Your task to perform on an android device: What is the news today? Image 0: 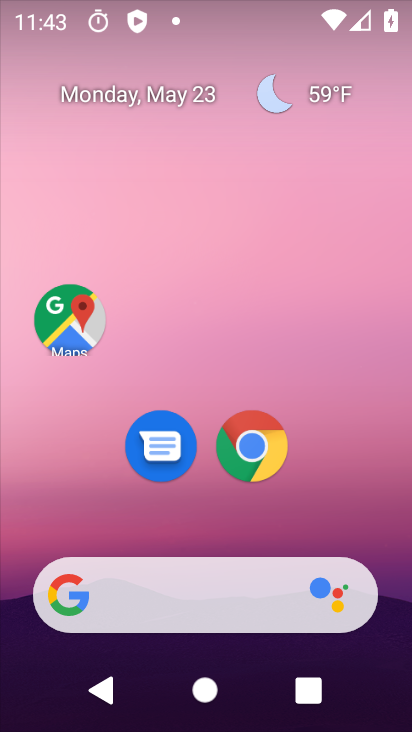
Step 0: drag from (211, 545) to (250, 96)
Your task to perform on an android device: What is the news today? Image 1: 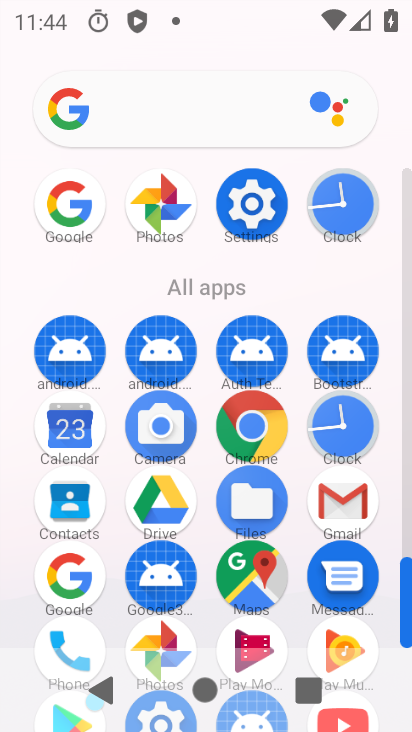
Step 1: click (74, 571)
Your task to perform on an android device: What is the news today? Image 2: 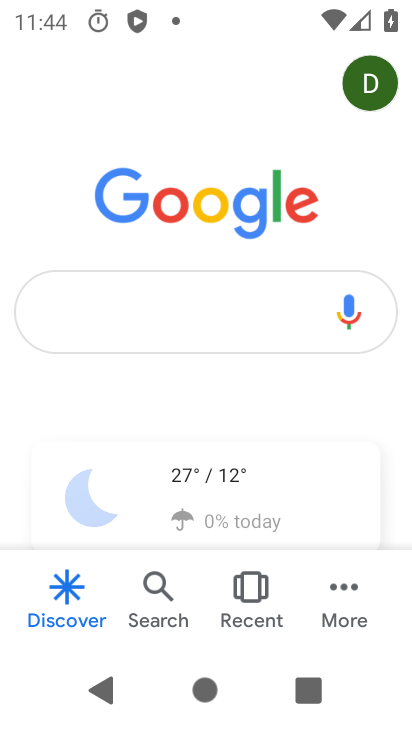
Step 2: click (81, 320)
Your task to perform on an android device: What is the news today? Image 3: 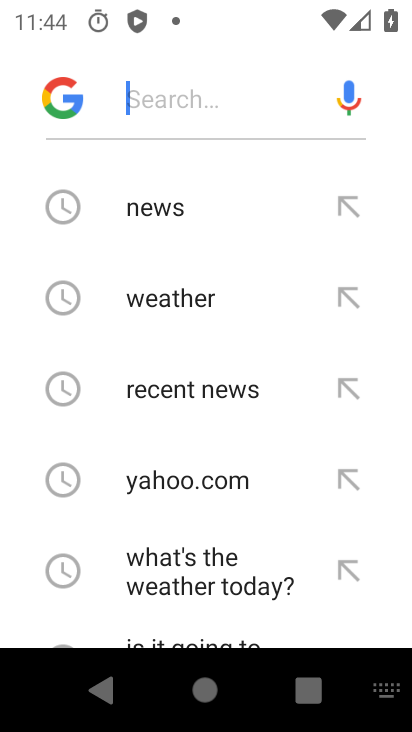
Step 3: click (171, 236)
Your task to perform on an android device: What is the news today? Image 4: 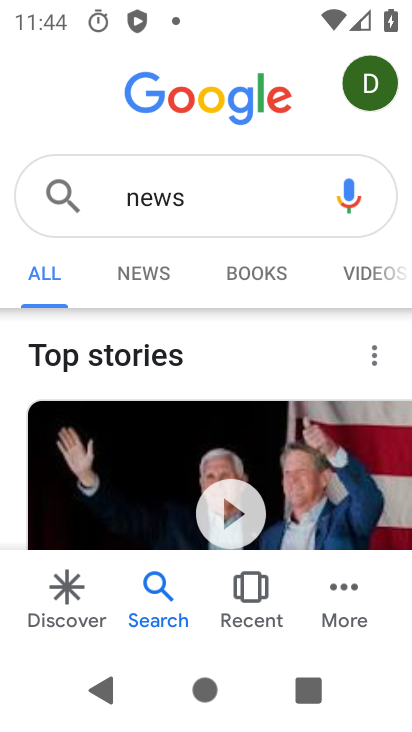
Step 4: task complete